Your task to perform on an android device: When is my next meeting? Image 0: 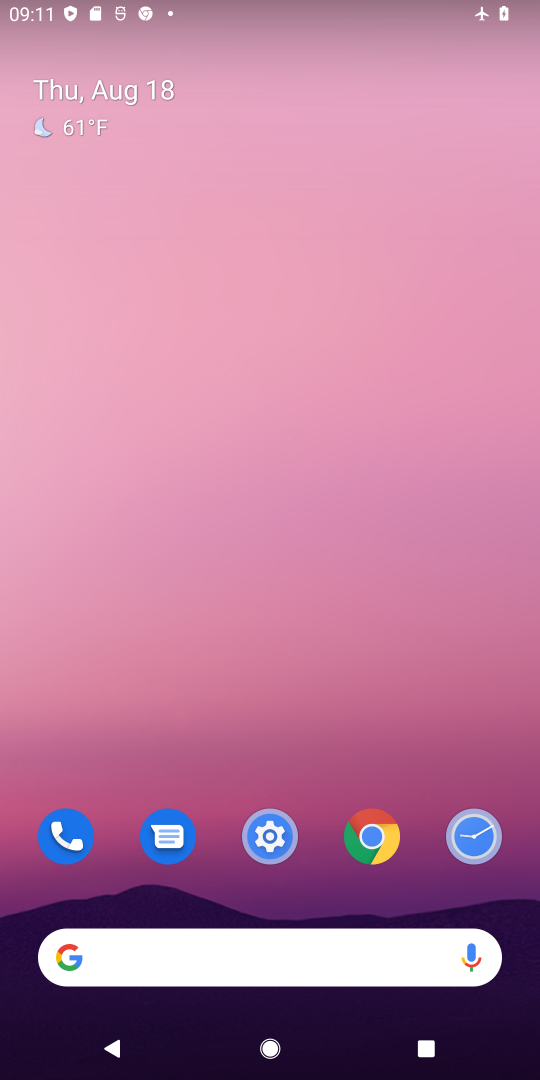
Step 0: drag from (295, 473) to (353, 106)
Your task to perform on an android device: When is my next meeting? Image 1: 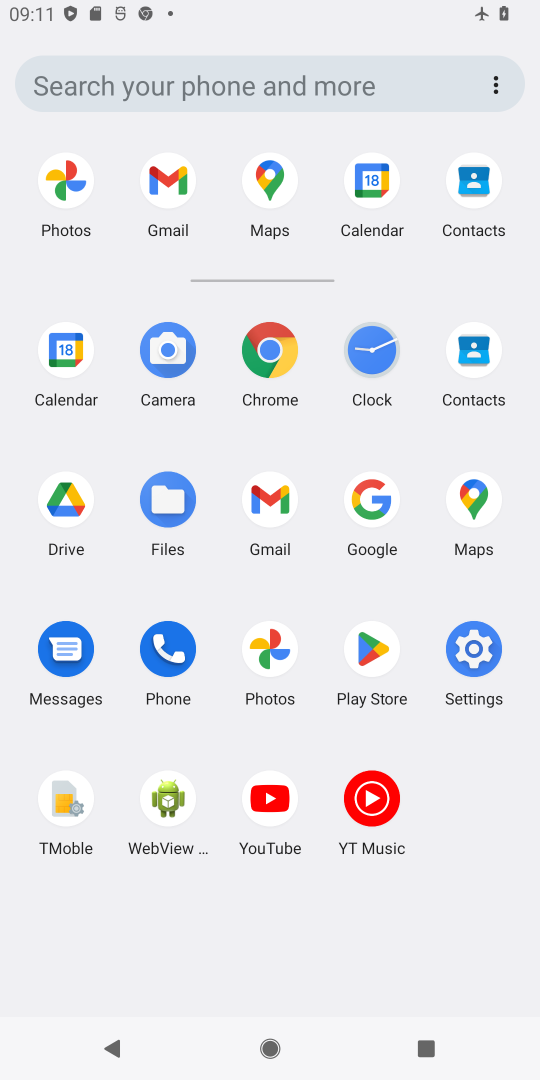
Step 1: click (55, 344)
Your task to perform on an android device: When is my next meeting? Image 2: 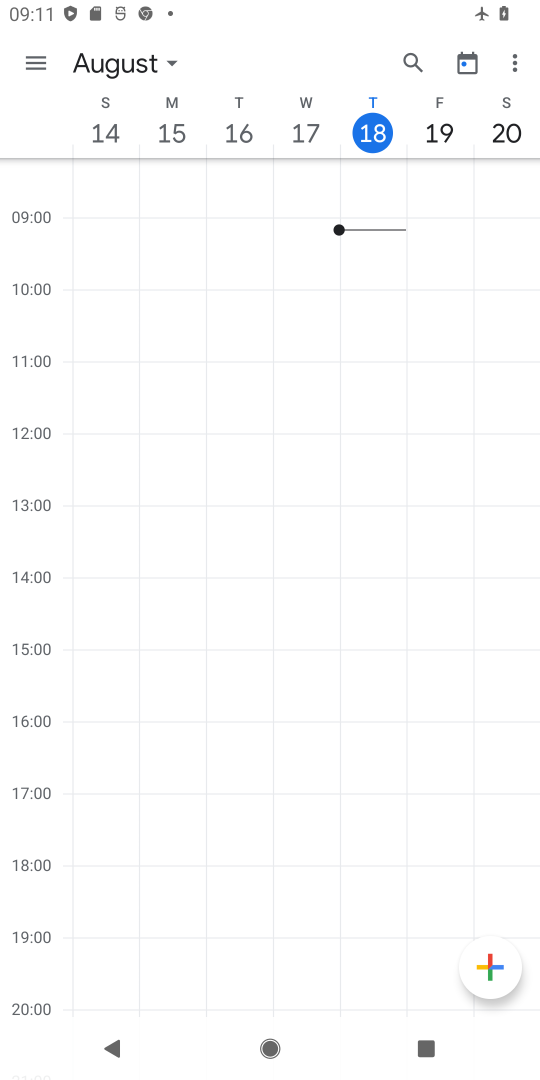
Step 2: click (441, 125)
Your task to perform on an android device: When is my next meeting? Image 3: 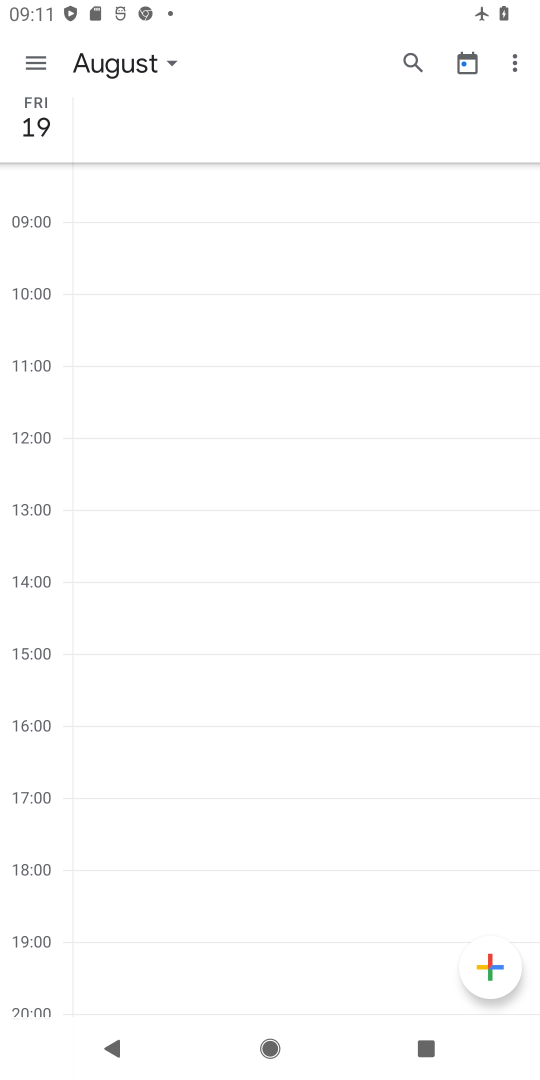
Step 3: task complete